Your task to perform on an android device: Go to display settings Image 0: 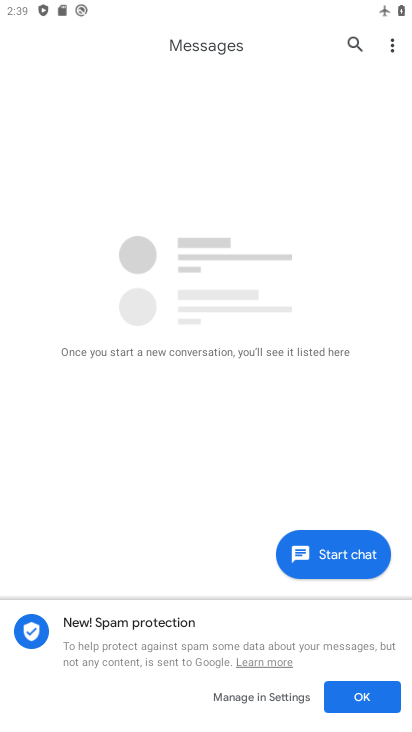
Step 0: press back button
Your task to perform on an android device: Go to display settings Image 1: 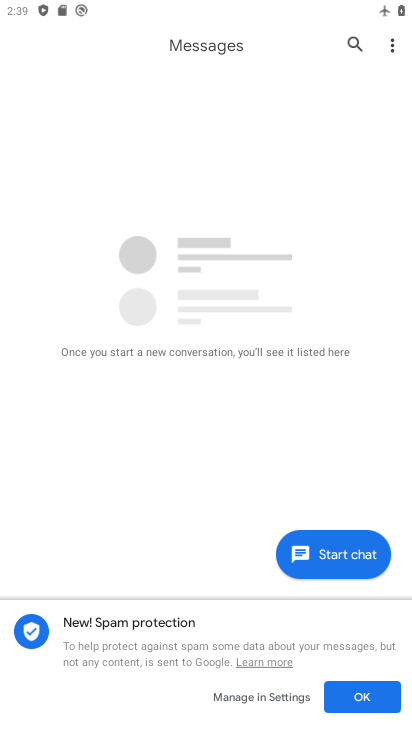
Step 1: press back button
Your task to perform on an android device: Go to display settings Image 2: 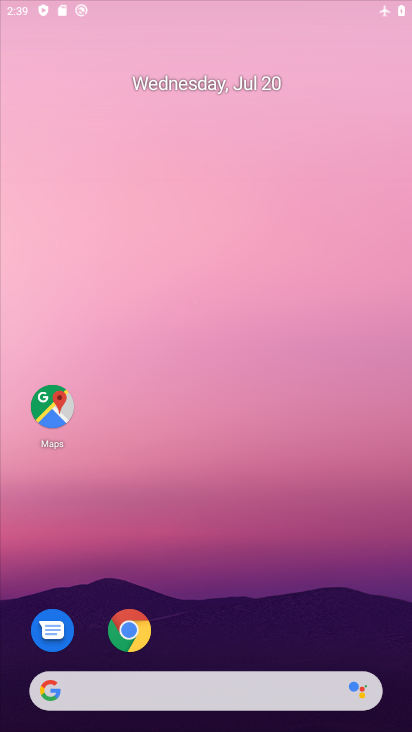
Step 2: press back button
Your task to perform on an android device: Go to display settings Image 3: 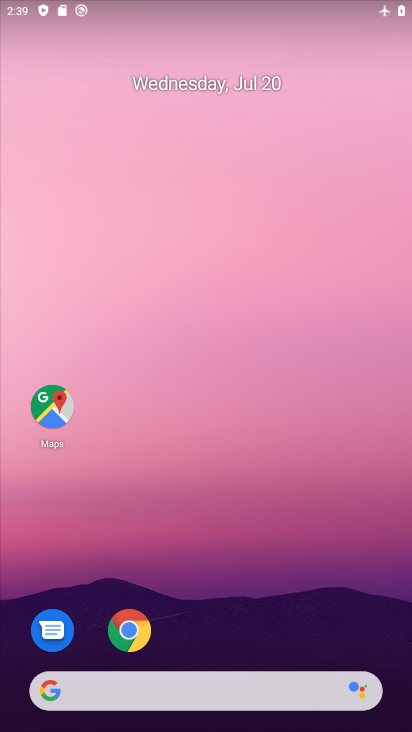
Step 3: drag from (293, 537) to (257, 204)
Your task to perform on an android device: Go to display settings Image 4: 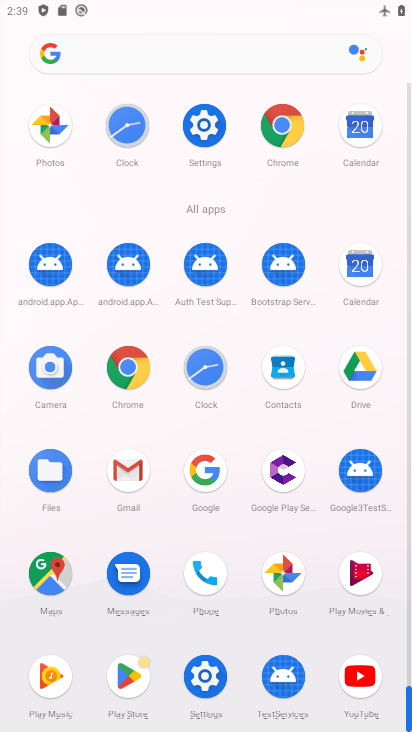
Step 4: click (202, 108)
Your task to perform on an android device: Go to display settings Image 5: 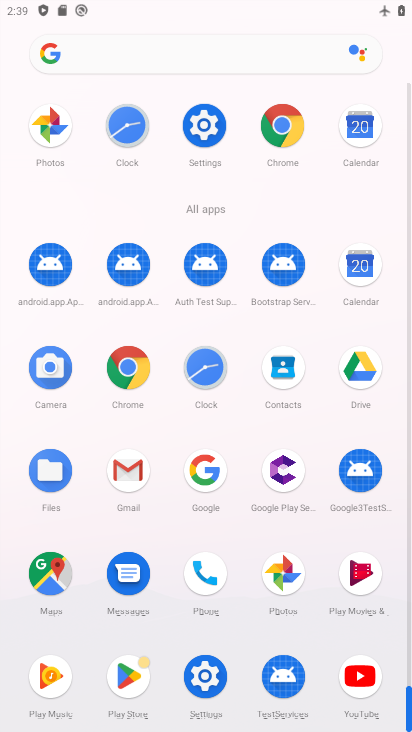
Step 5: click (202, 108)
Your task to perform on an android device: Go to display settings Image 6: 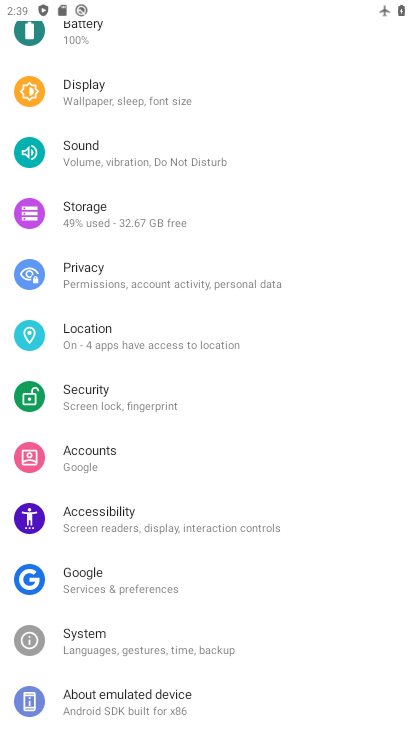
Step 6: click (92, 89)
Your task to perform on an android device: Go to display settings Image 7: 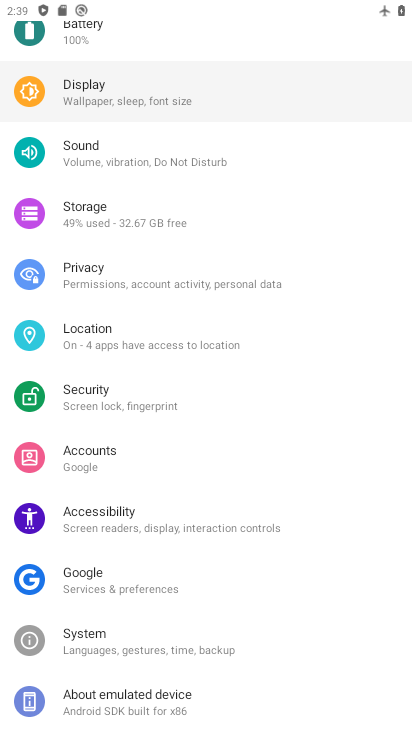
Step 7: click (92, 89)
Your task to perform on an android device: Go to display settings Image 8: 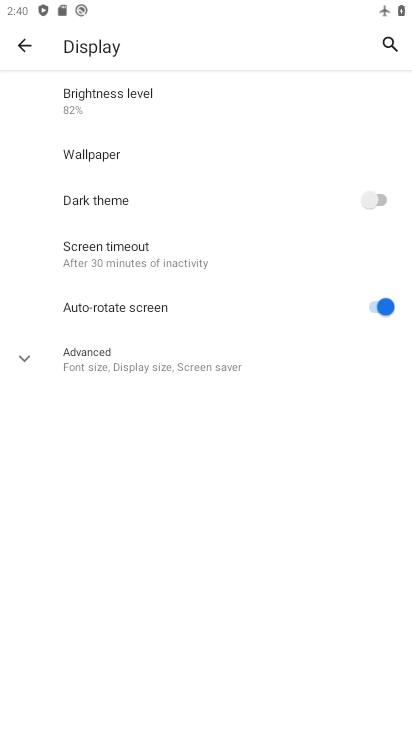
Step 8: task complete